Your task to perform on an android device: toggle javascript in the chrome app Image 0: 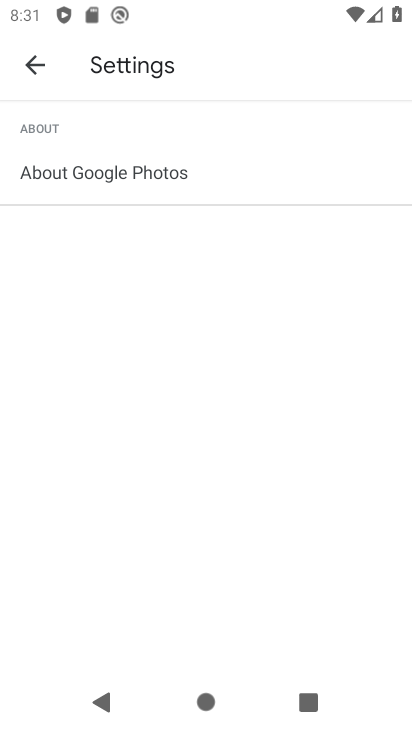
Step 0: press home button
Your task to perform on an android device: toggle javascript in the chrome app Image 1: 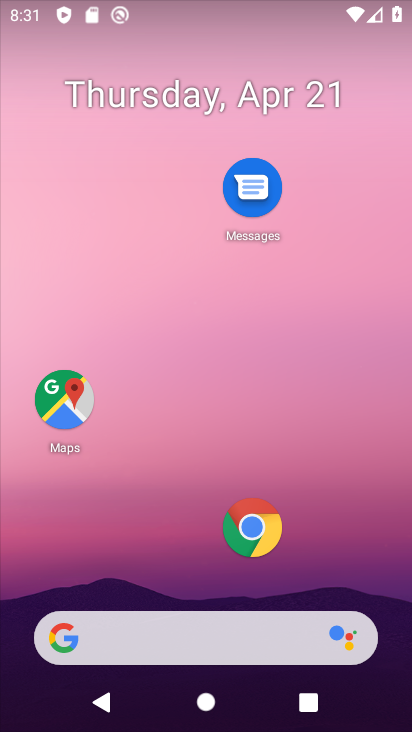
Step 1: drag from (171, 636) to (242, 169)
Your task to perform on an android device: toggle javascript in the chrome app Image 2: 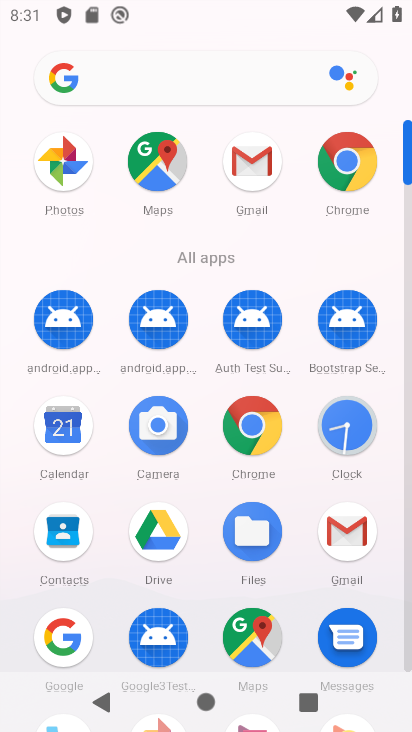
Step 2: click (351, 170)
Your task to perform on an android device: toggle javascript in the chrome app Image 3: 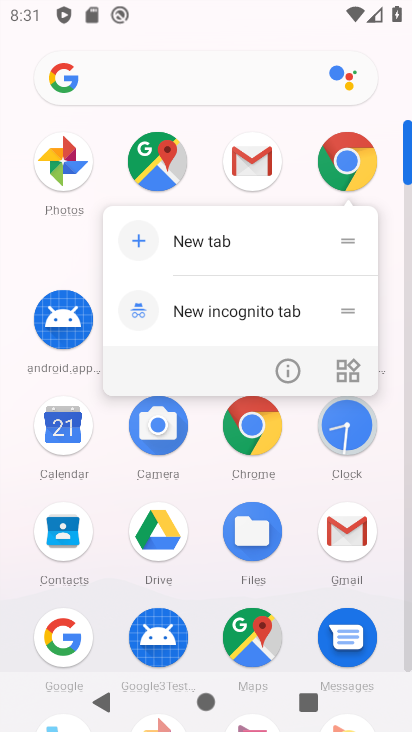
Step 3: click (339, 166)
Your task to perform on an android device: toggle javascript in the chrome app Image 4: 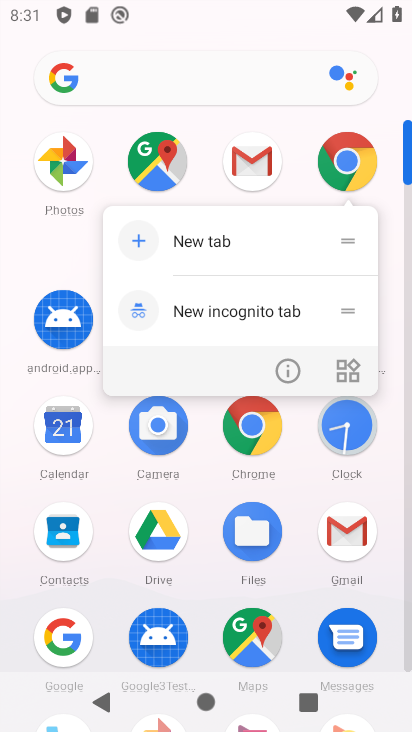
Step 4: click (337, 171)
Your task to perform on an android device: toggle javascript in the chrome app Image 5: 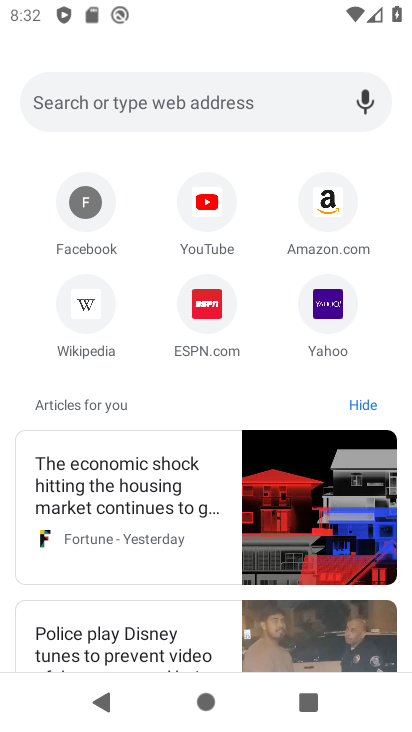
Step 5: drag from (273, 157) to (229, 505)
Your task to perform on an android device: toggle javascript in the chrome app Image 6: 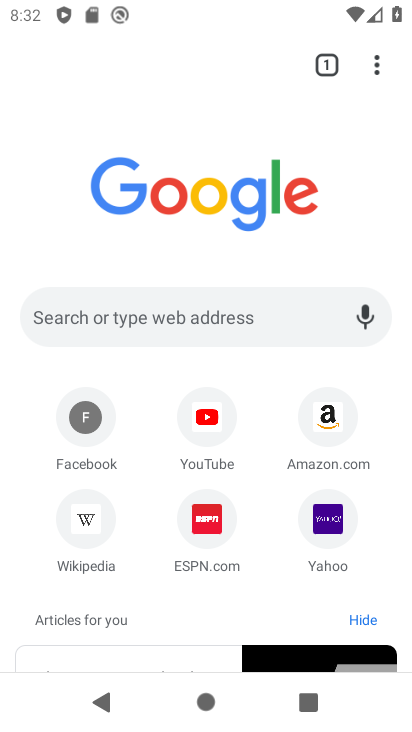
Step 6: click (377, 72)
Your task to perform on an android device: toggle javascript in the chrome app Image 7: 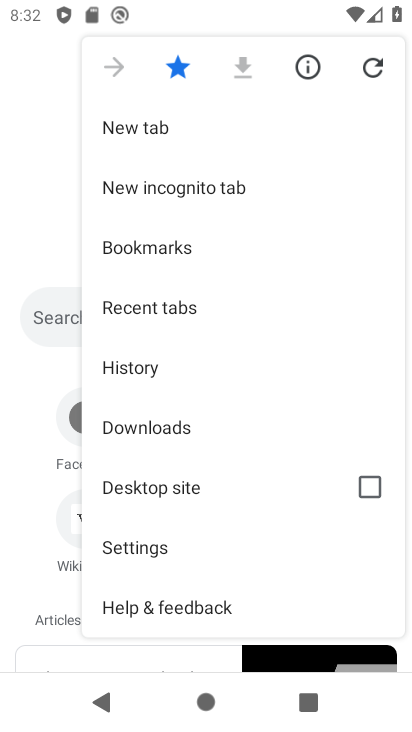
Step 7: click (148, 544)
Your task to perform on an android device: toggle javascript in the chrome app Image 8: 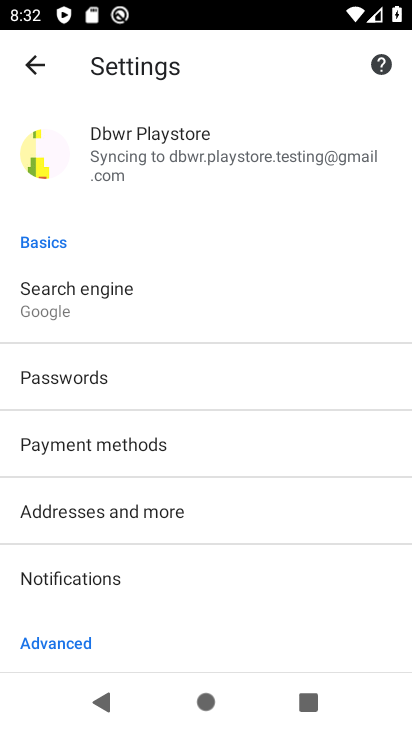
Step 8: drag from (139, 567) to (253, 214)
Your task to perform on an android device: toggle javascript in the chrome app Image 9: 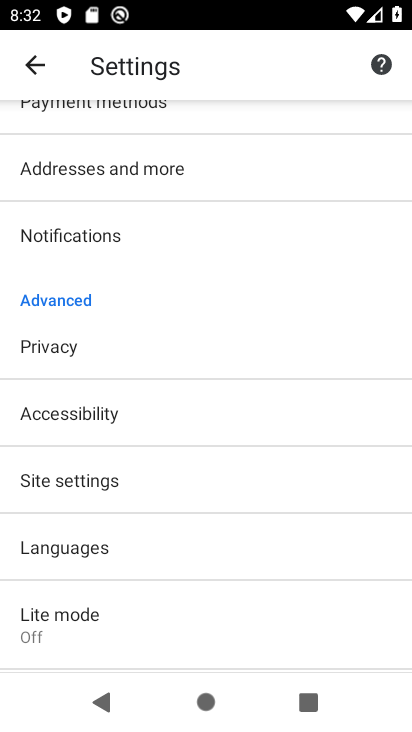
Step 9: click (67, 487)
Your task to perform on an android device: toggle javascript in the chrome app Image 10: 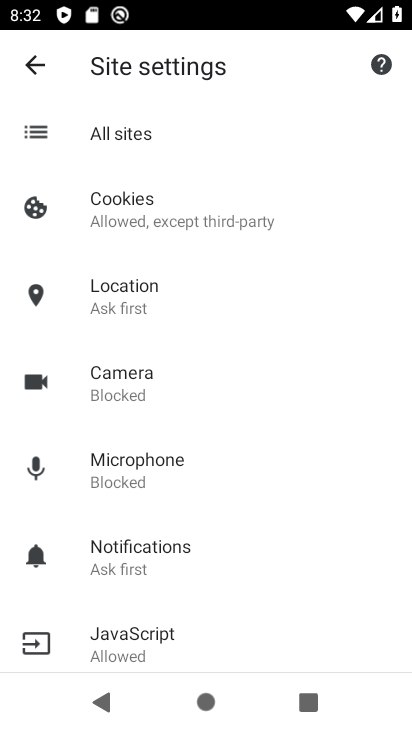
Step 10: click (138, 632)
Your task to perform on an android device: toggle javascript in the chrome app Image 11: 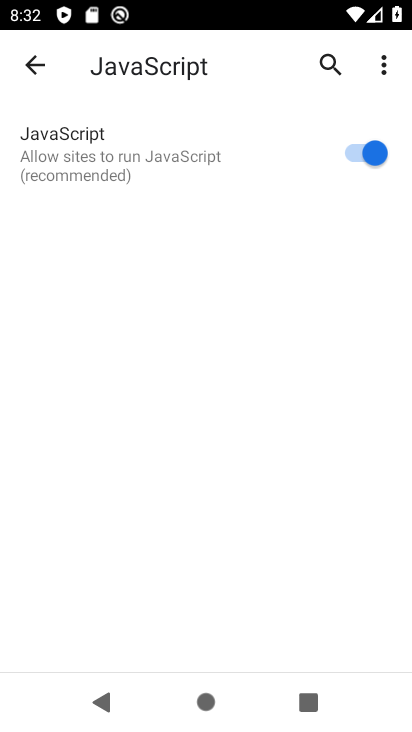
Step 11: click (360, 153)
Your task to perform on an android device: toggle javascript in the chrome app Image 12: 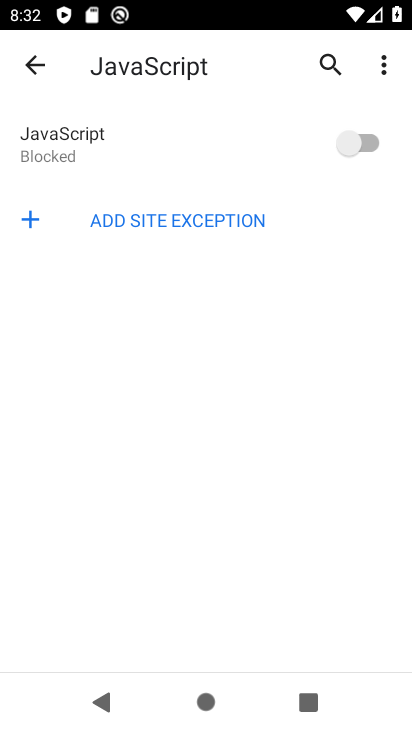
Step 12: task complete